Your task to perform on an android device: open app "AliExpress" Image 0: 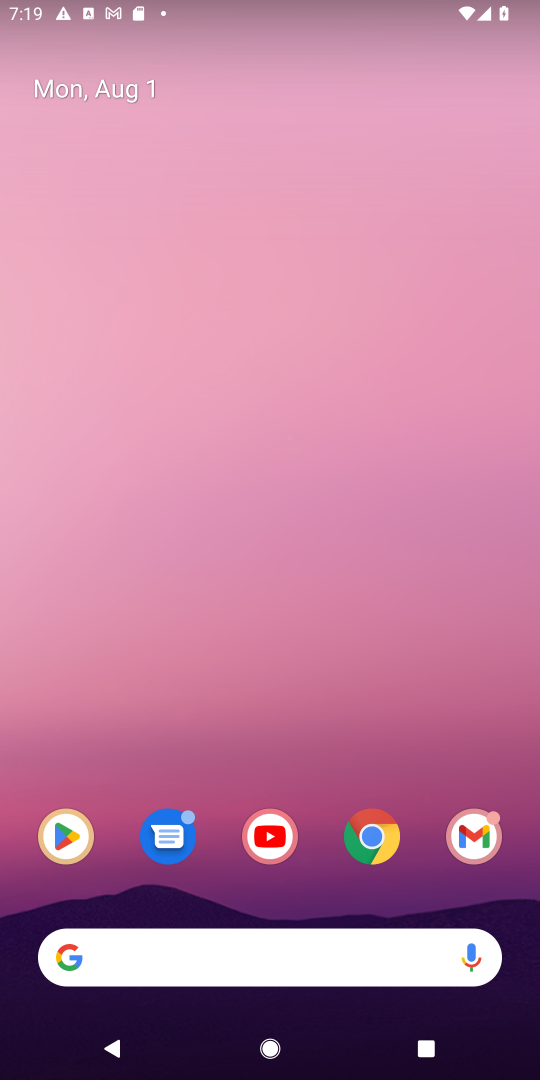
Step 0: click (74, 828)
Your task to perform on an android device: open app "AliExpress" Image 1: 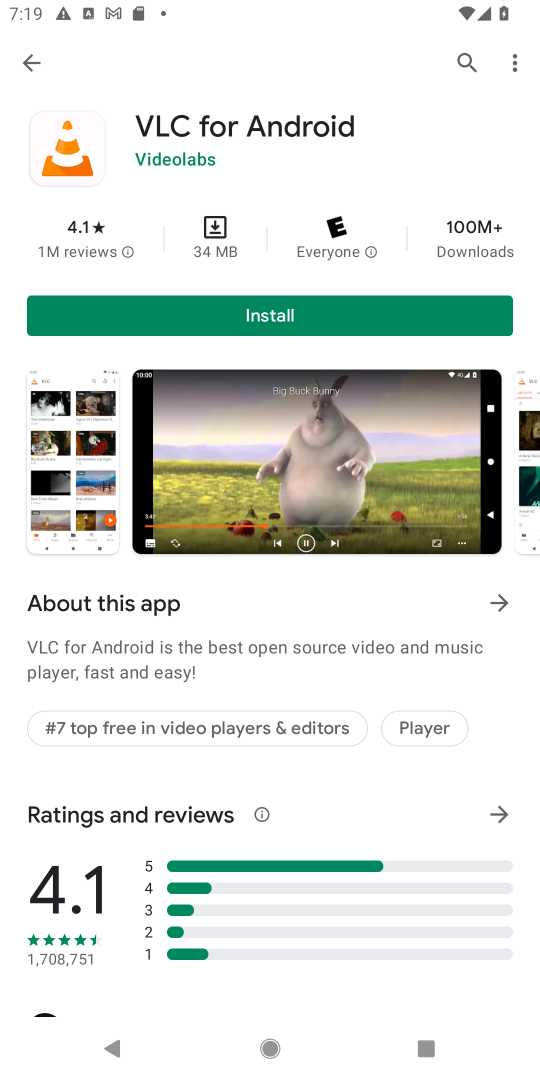
Step 1: click (465, 51)
Your task to perform on an android device: open app "AliExpress" Image 2: 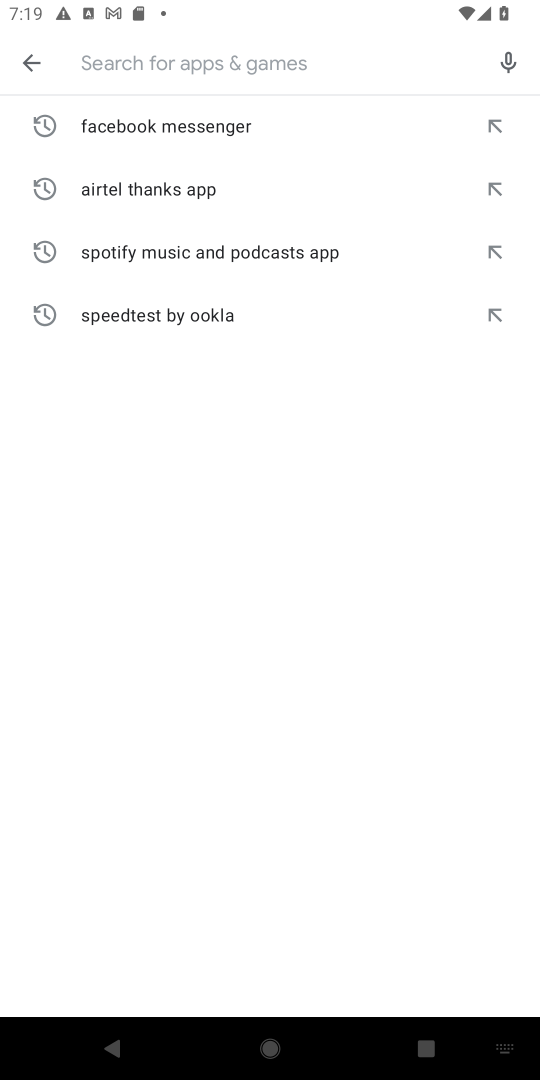
Step 2: type "AliExpress"
Your task to perform on an android device: open app "AliExpress" Image 3: 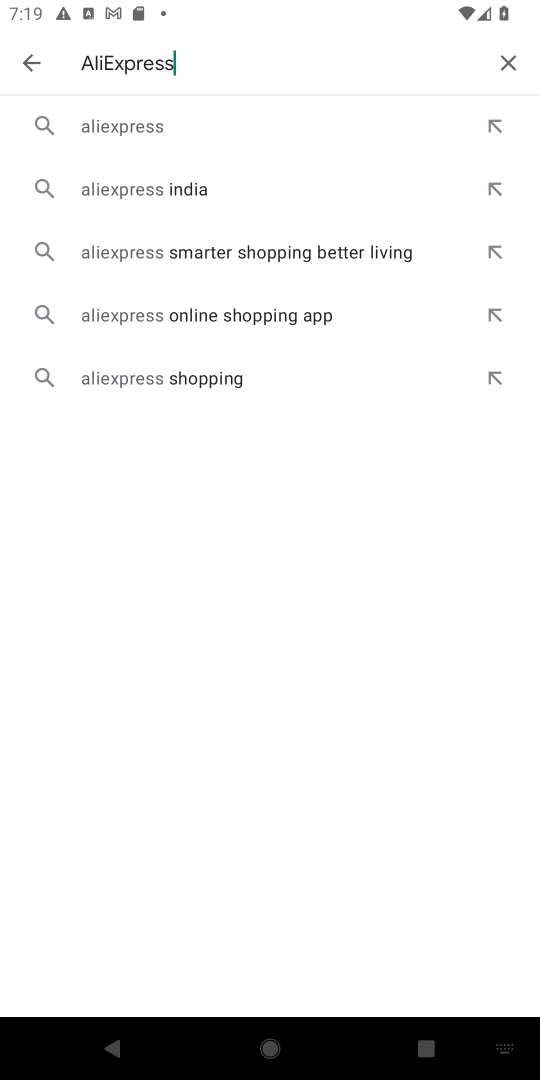
Step 3: click (153, 130)
Your task to perform on an android device: open app "AliExpress" Image 4: 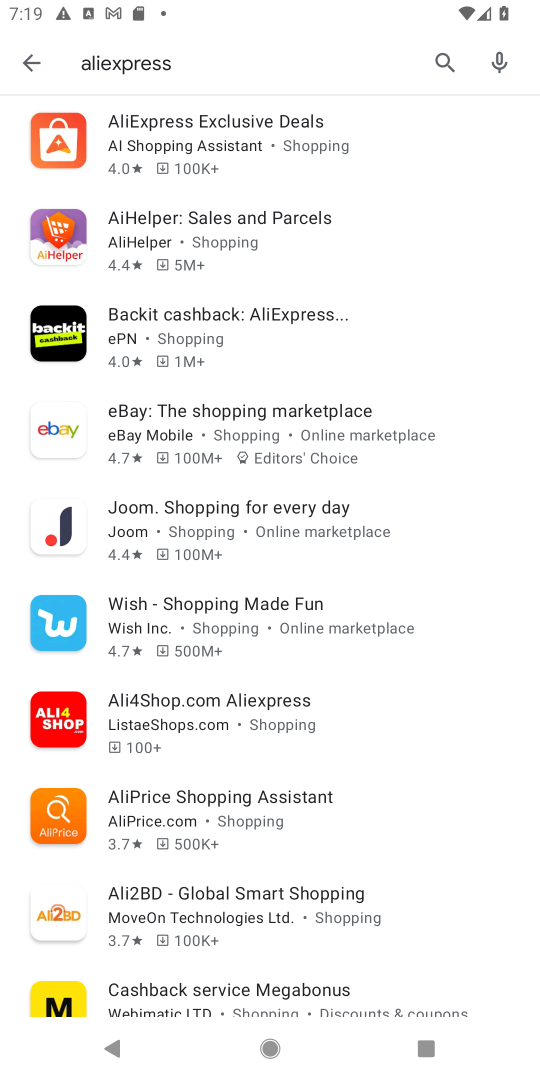
Step 4: click (173, 134)
Your task to perform on an android device: open app "AliExpress" Image 5: 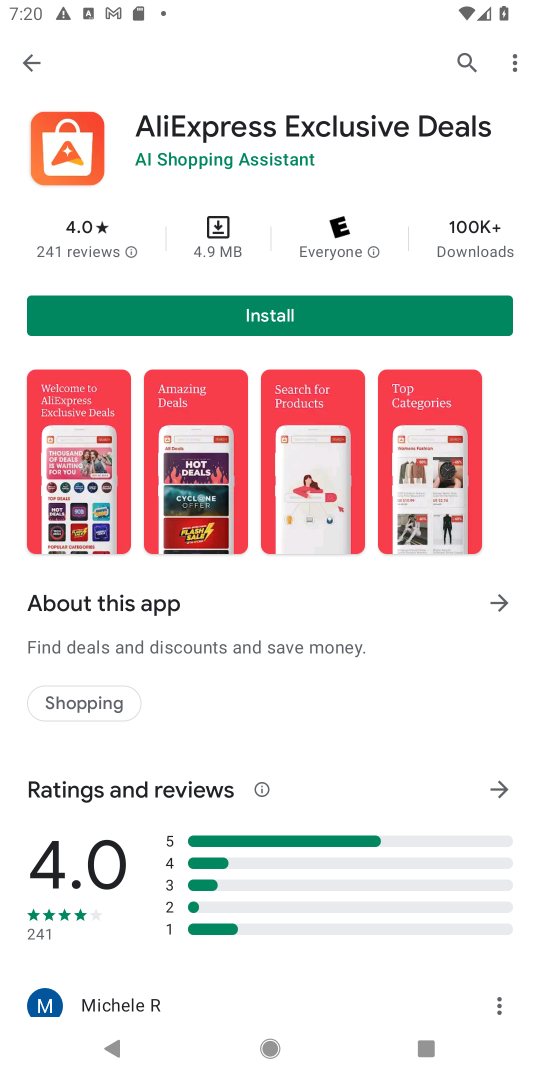
Step 5: task complete